Your task to perform on an android device: Add macbook pro to the cart on amazon Image 0: 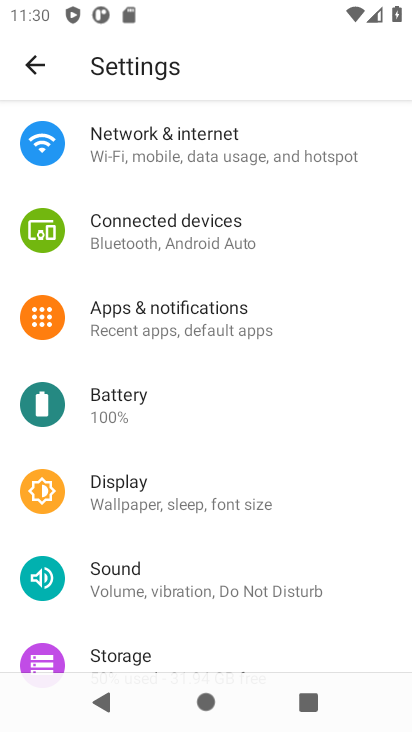
Step 0: press home button
Your task to perform on an android device: Add macbook pro to the cart on amazon Image 1: 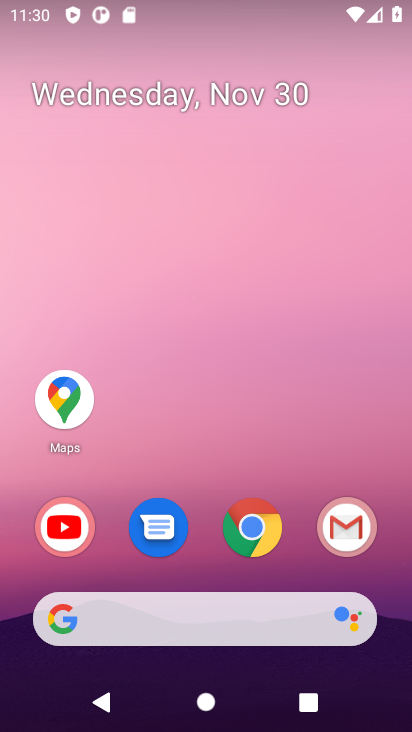
Step 1: click (255, 528)
Your task to perform on an android device: Add macbook pro to the cart on amazon Image 2: 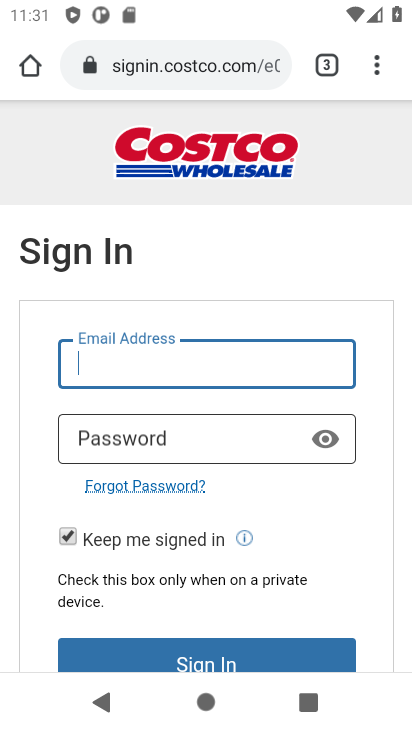
Step 2: click (189, 59)
Your task to perform on an android device: Add macbook pro to the cart on amazon Image 3: 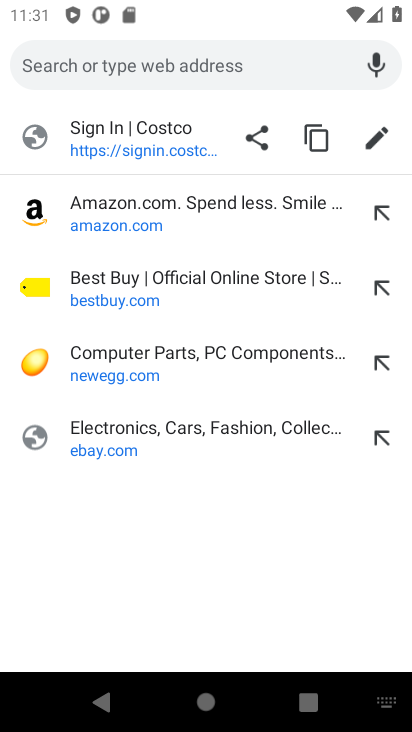
Step 3: click (123, 213)
Your task to perform on an android device: Add macbook pro to the cart on amazon Image 4: 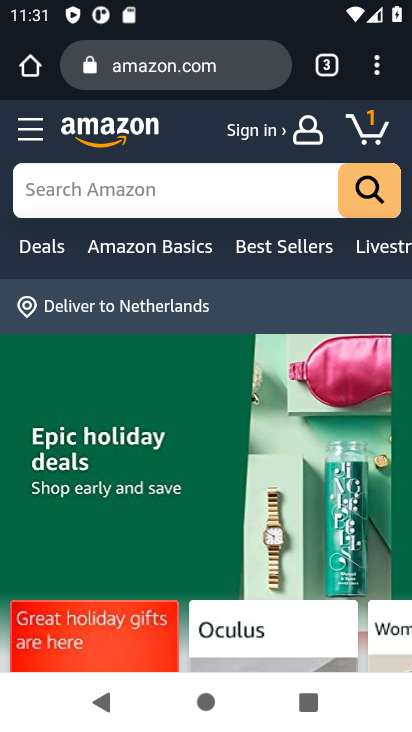
Step 4: click (109, 188)
Your task to perform on an android device: Add macbook pro to the cart on amazon Image 5: 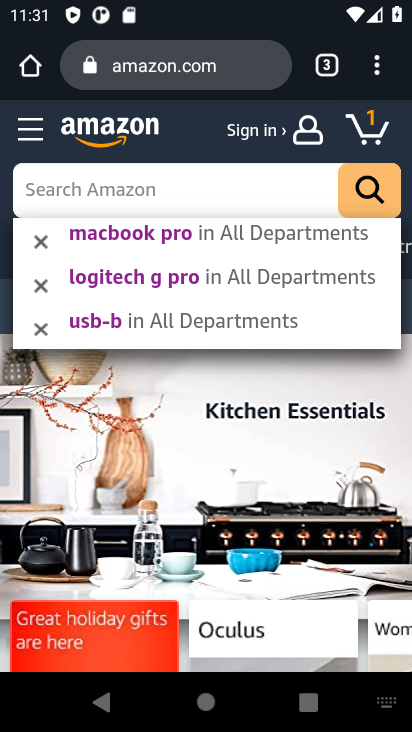
Step 5: type "macbook pro"
Your task to perform on an android device: Add macbook pro to the cart on amazon Image 6: 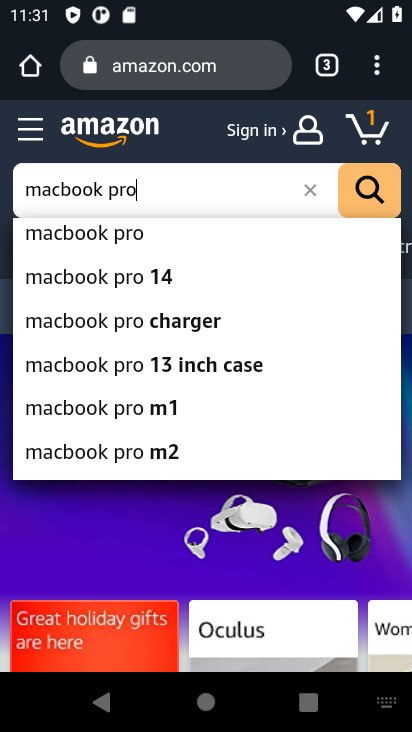
Step 6: click (119, 237)
Your task to perform on an android device: Add macbook pro to the cart on amazon Image 7: 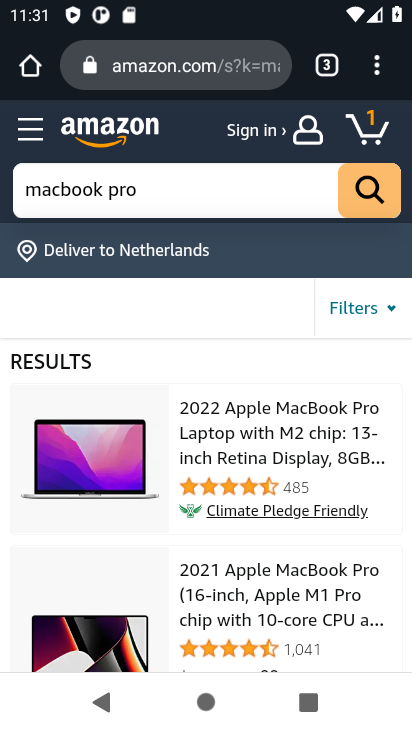
Step 7: drag from (139, 545) to (162, 323)
Your task to perform on an android device: Add macbook pro to the cart on amazon Image 8: 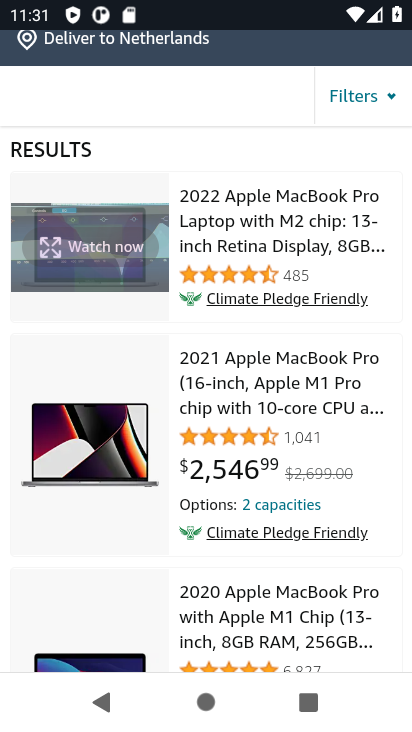
Step 8: drag from (128, 500) to (147, 359)
Your task to perform on an android device: Add macbook pro to the cart on amazon Image 9: 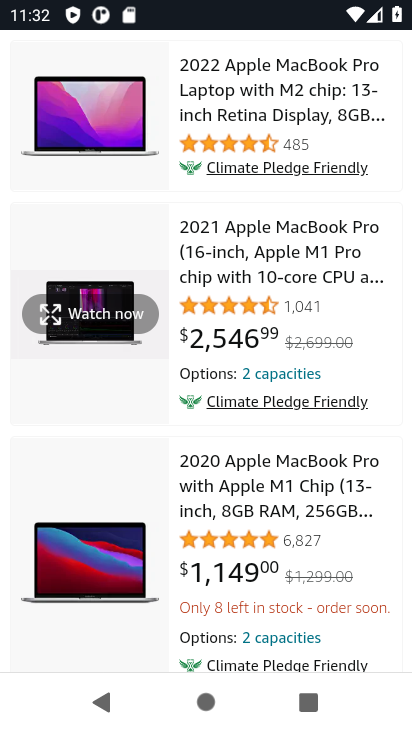
Step 9: drag from (110, 512) to (127, 364)
Your task to perform on an android device: Add macbook pro to the cart on amazon Image 10: 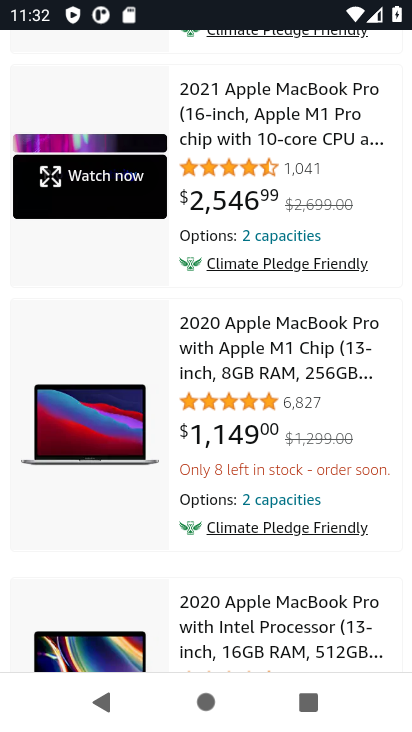
Step 10: drag from (95, 527) to (124, 323)
Your task to perform on an android device: Add macbook pro to the cart on amazon Image 11: 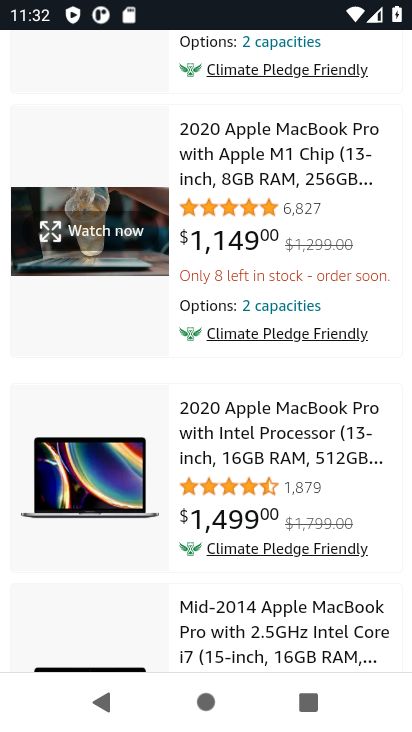
Step 11: drag from (81, 601) to (101, 270)
Your task to perform on an android device: Add macbook pro to the cart on amazon Image 12: 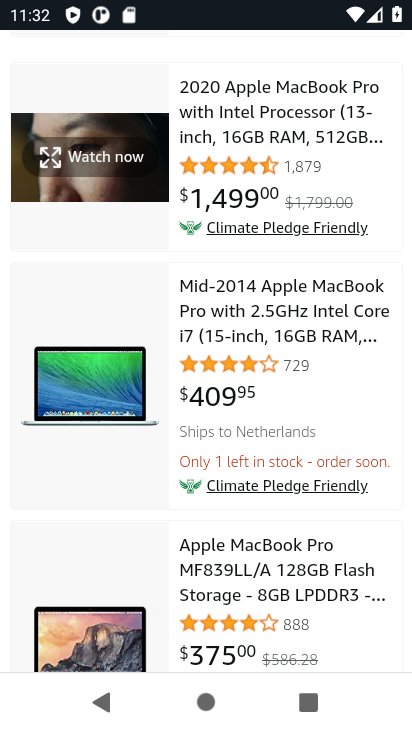
Step 12: click (259, 315)
Your task to perform on an android device: Add macbook pro to the cart on amazon Image 13: 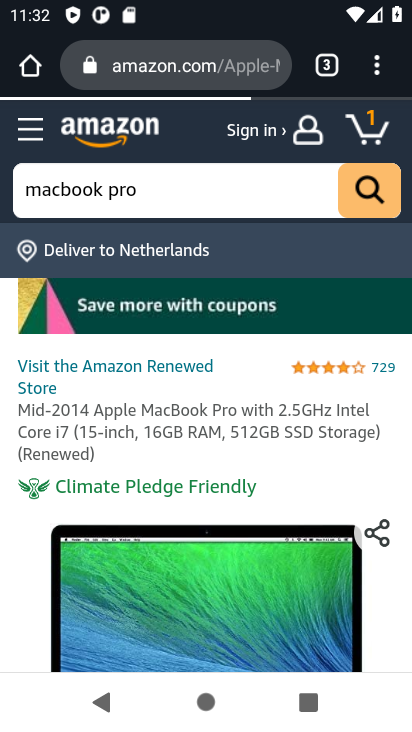
Step 13: drag from (206, 541) to (220, 137)
Your task to perform on an android device: Add macbook pro to the cart on amazon Image 14: 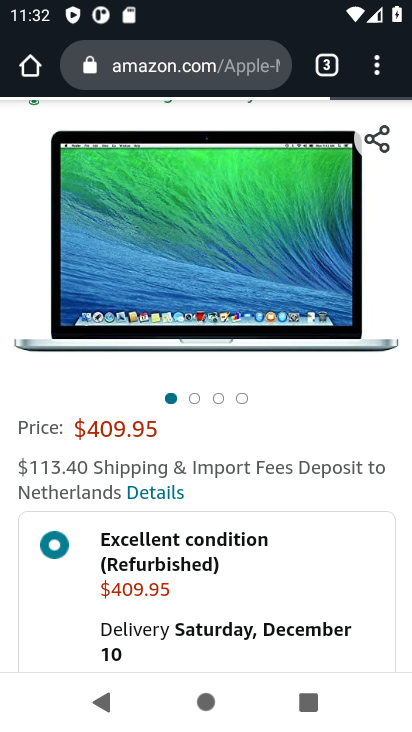
Step 14: drag from (168, 446) to (178, 184)
Your task to perform on an android device: Add macbook pro to the cart on amazon Image 15: 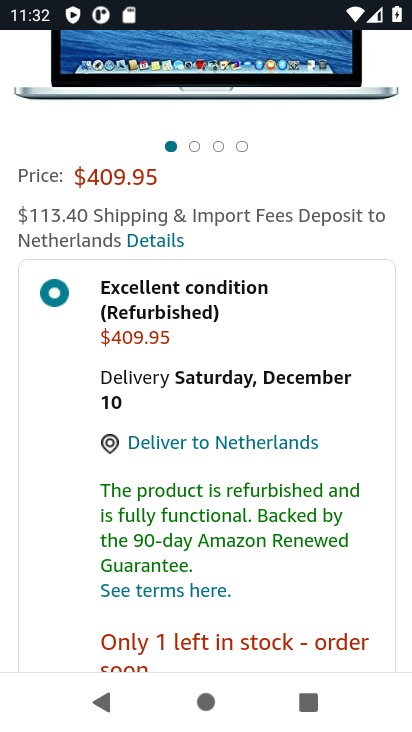
Step 15: drag from (177, 518) to (191, 202)
Your task to perform on an android device: Add macbook pro to the cart on amazon Image 16: 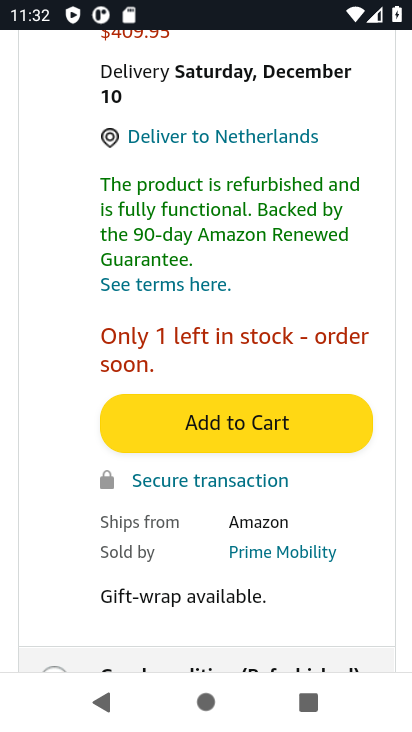
Step 16: click (210, 431)
Your task to perform on an android device: Add macbook pro to the cart on amazon Image 17: 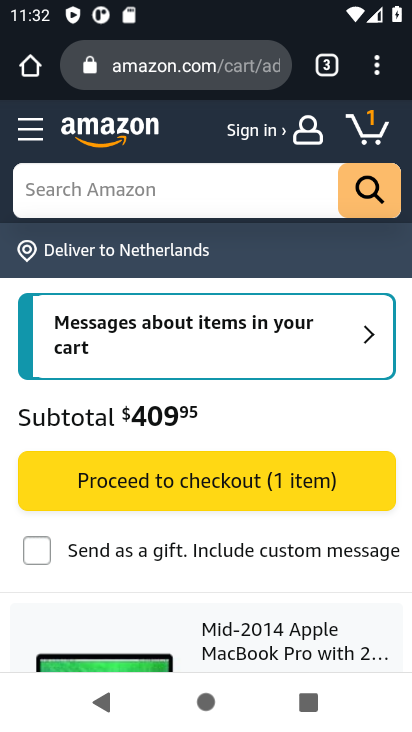
Step 17: task complete